Your task to perform on an android device: check the backup settings in the google photos Image 0: 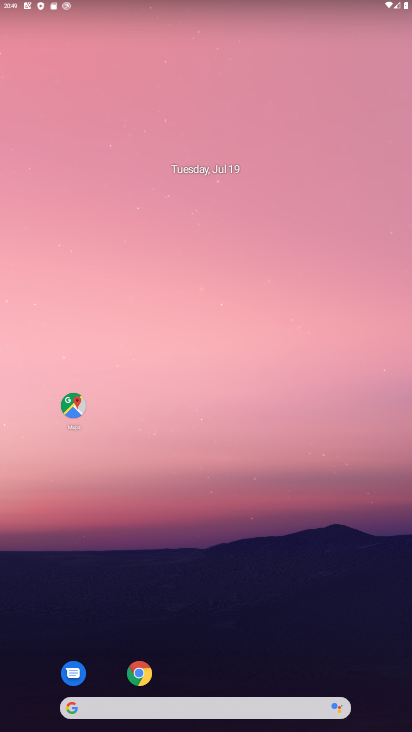
Step 0: drag from (211, 671) to (249, 110)
Your task to perform on an android device: check the backup settings in the google photos Image 1: 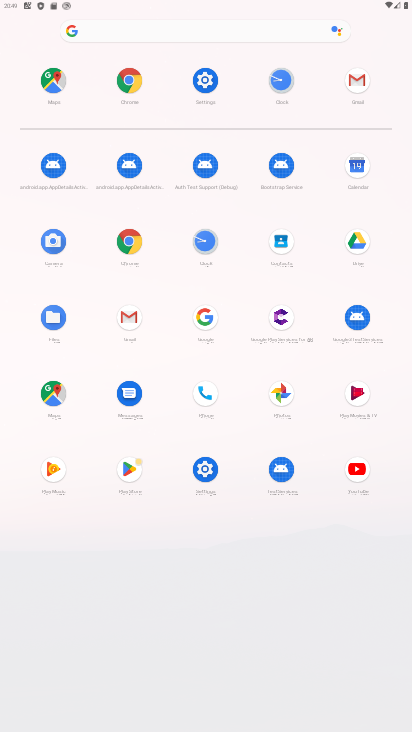
Step 1: click (287, 398)
Your task to perform on an android device: check the backup settings in the google photos Image 2: 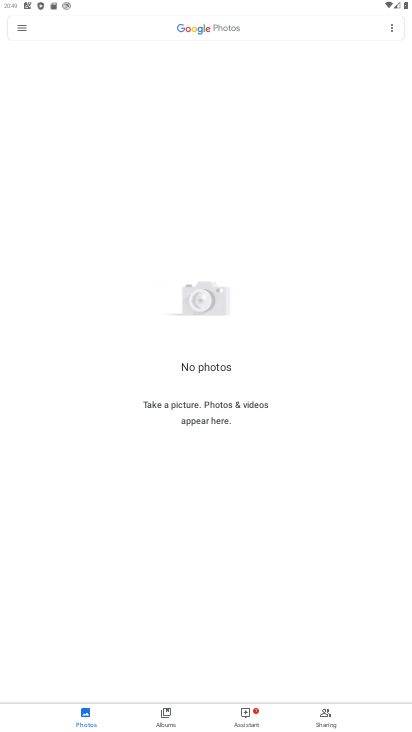
Step 2: click (21, 29)
Your task to perform on an android device: check the backup settings in the google photos Image 3: 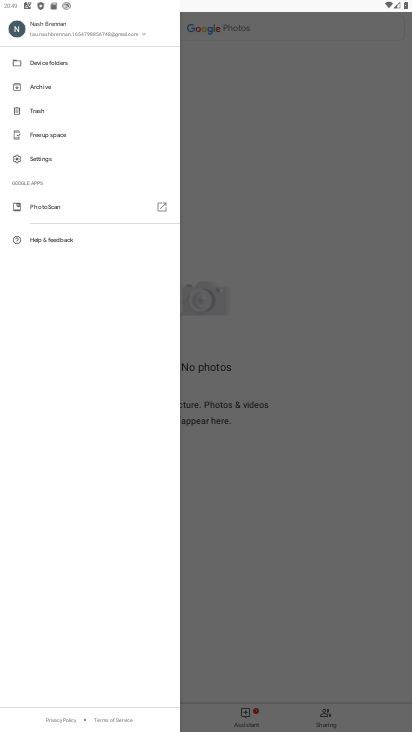
Step 3: click (50, 158)
Your task to perform on an android device: check the backup settings in the google photos Image 4: 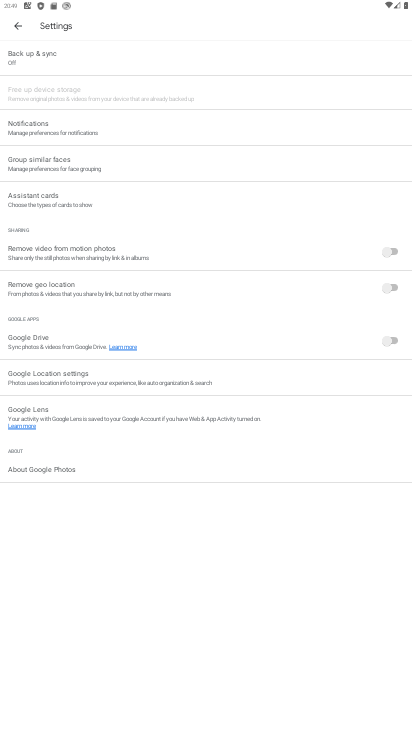
Step 4: click (53, 56)
Your task to perform on an android device: check the backup settings in the google photos Image 5: 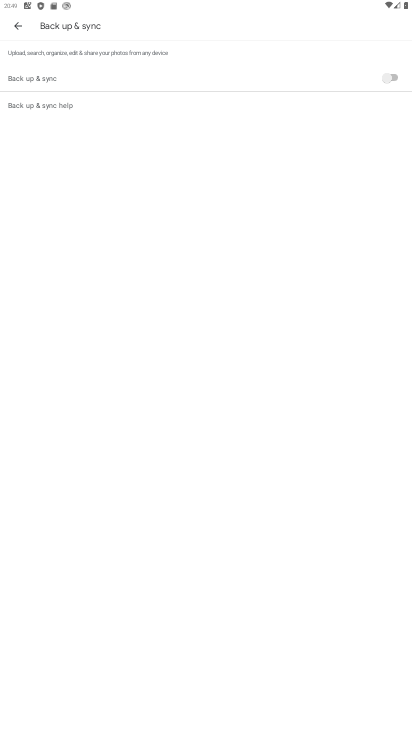
Step 5: task complete